Your task to perform on an android device: turn on location history Image 0: 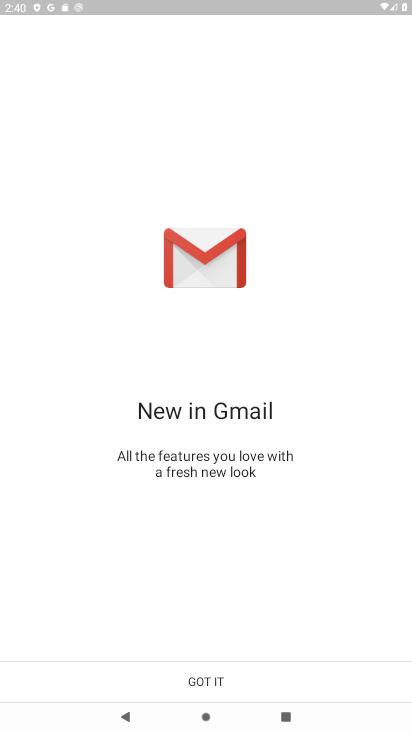
Step 0: press home button
Your task to perform on an android device: turn on location history Image 1: 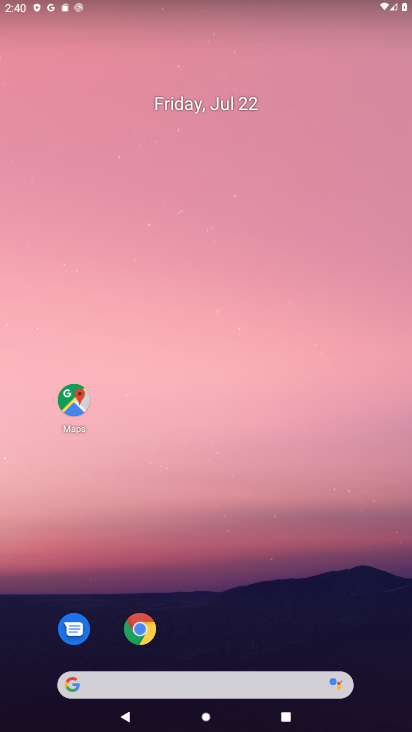
Step 1: click (69, 394)
Your task to perform on an android device: turn on location history Image 2: 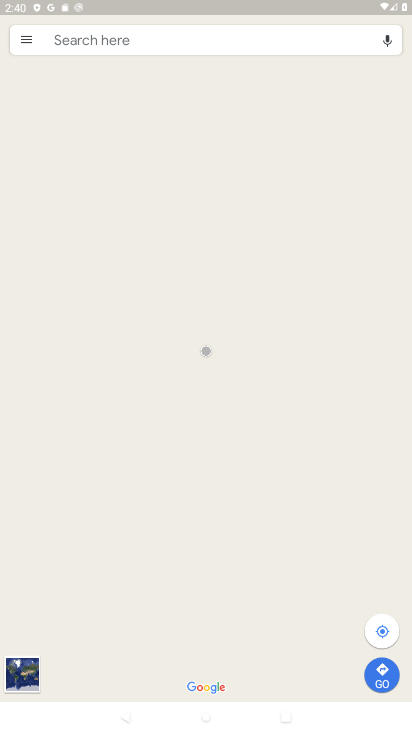
Step 2: click (22, 41)
Your task to perform on an android device: turn on location history Image 3: 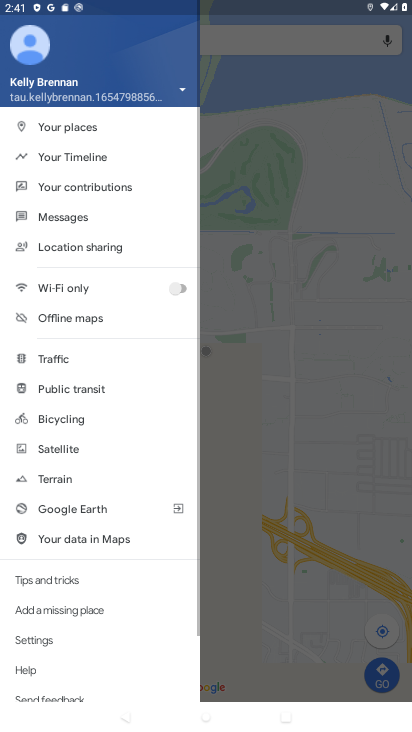
Step 3: click (72, 155)
Your task to perform on an android device: turn on location history Image 4: 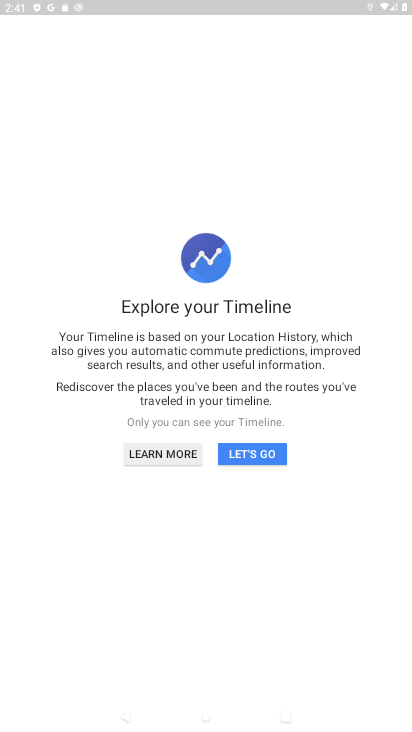
Step 4: click (251, 457)
Your task to perform on an android device: turn on location history Image 5: 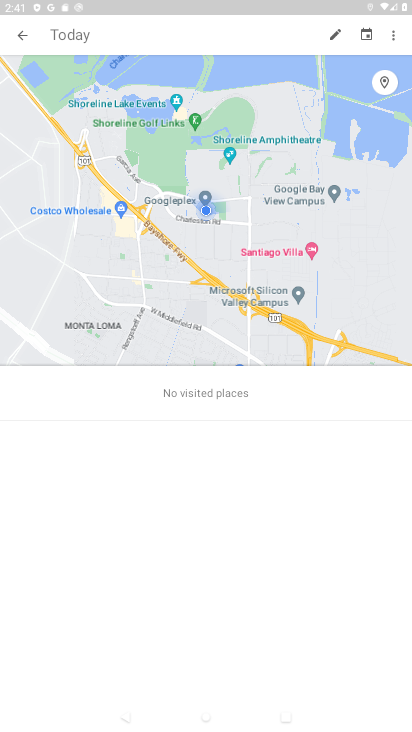
Step 5: click (392, 35)
Your task to perform on an android device: turn on location history Image 6: 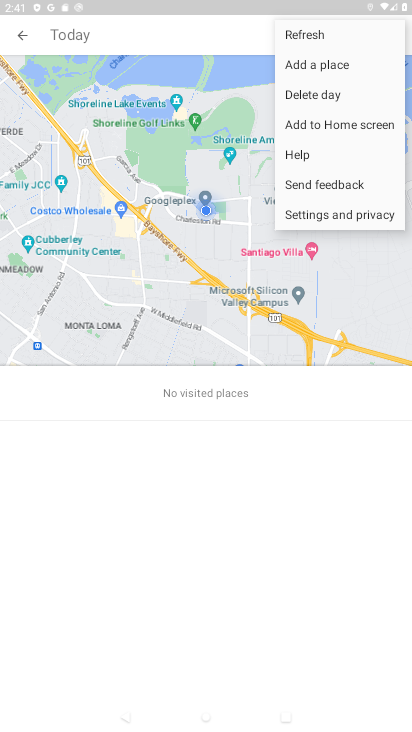
Step 6: click (337, 206)
Your task to perform on an android device: turn on location history Image 7: 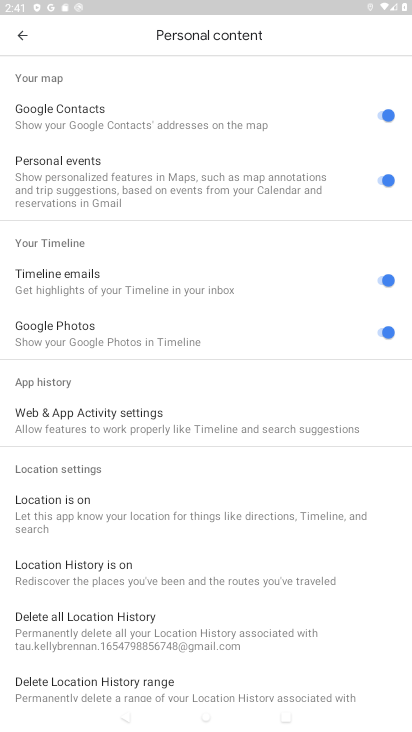
Step 7: click (102, 564)
Your task to perform on an android device: turn on location history Image 8: 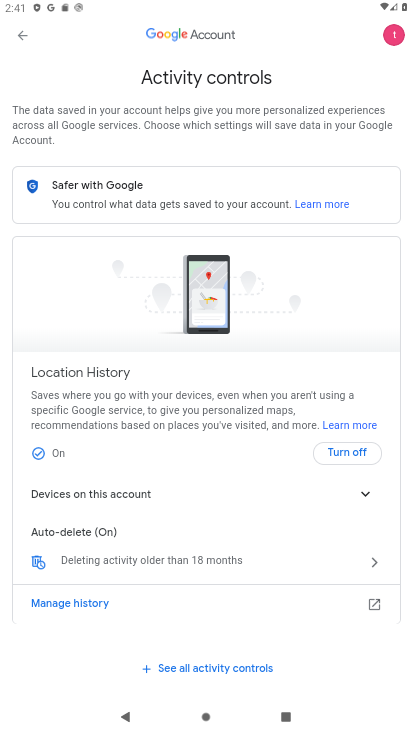
Step 8: task complete